Your task to perform on an android device: Open Yahoo.com Image 0: 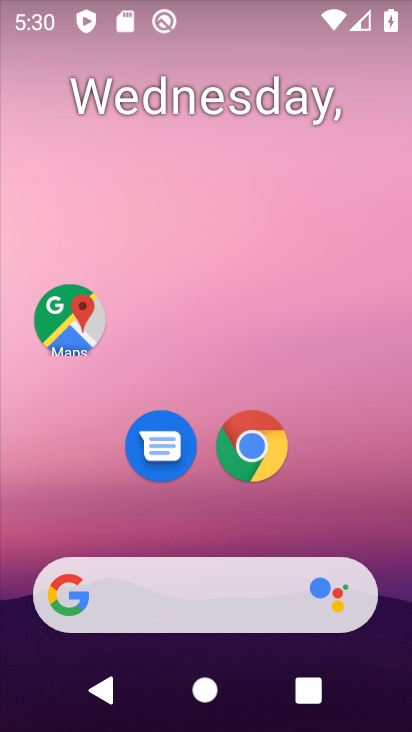
Step 0: drag from (348, 357) to (329, 22)
Your task to perform on an android device: Open Yahoo.com Image 1: 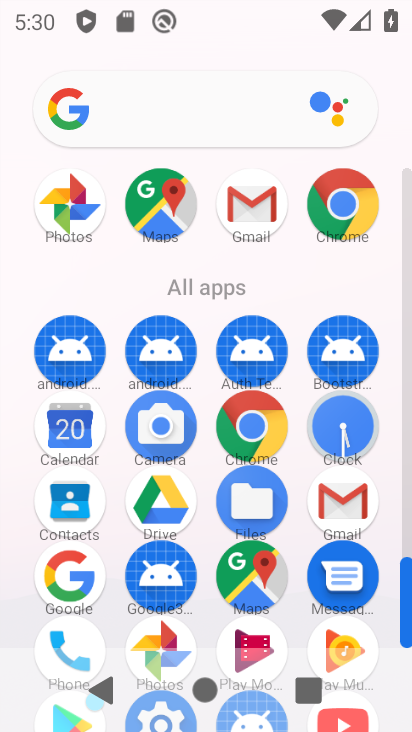
Step 1: click (254, 434)
Your task to perform on an android device: Open Yahoo.com Image 2: 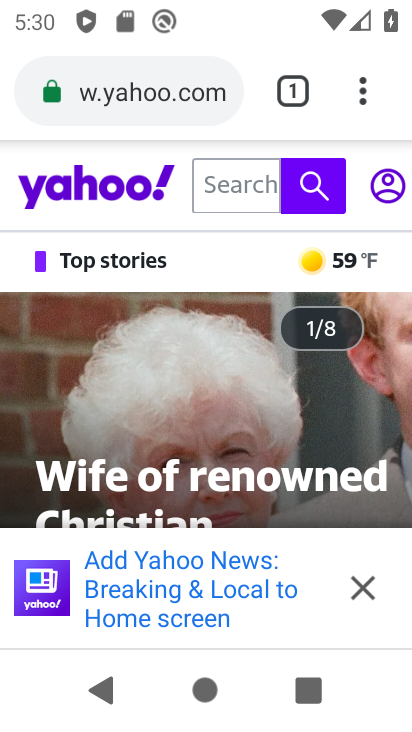
Step 2: task complete